Your task to perform on an android device: toggle sleep mode Image 0: 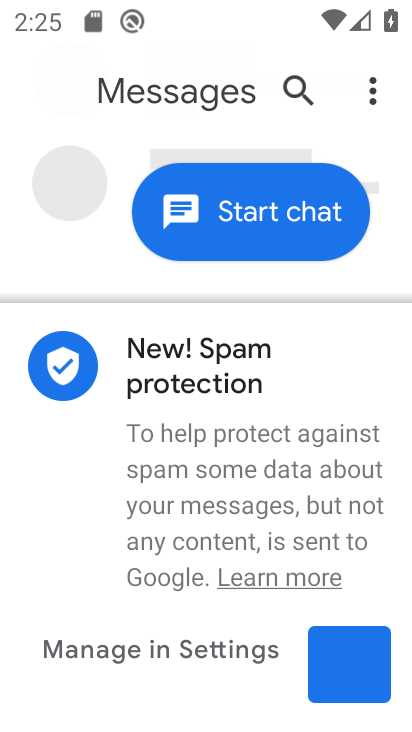
Step 0: click (409, 478)
Your task to perform on an android device: toggle sleep mode Image 1: 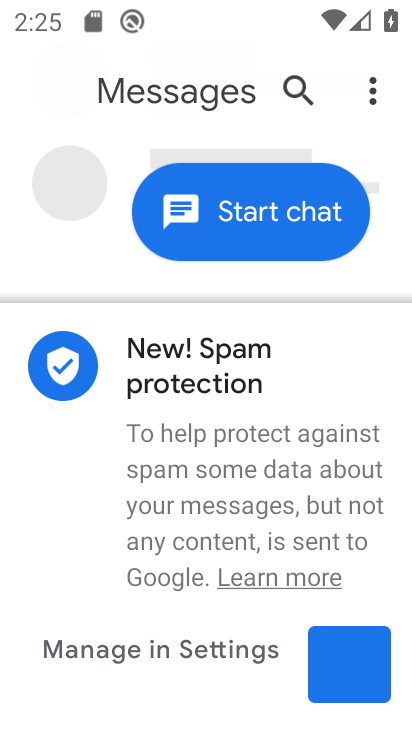
Step 1: press back button
Your task to perform on an android device: toggle sleep mode Image 2: 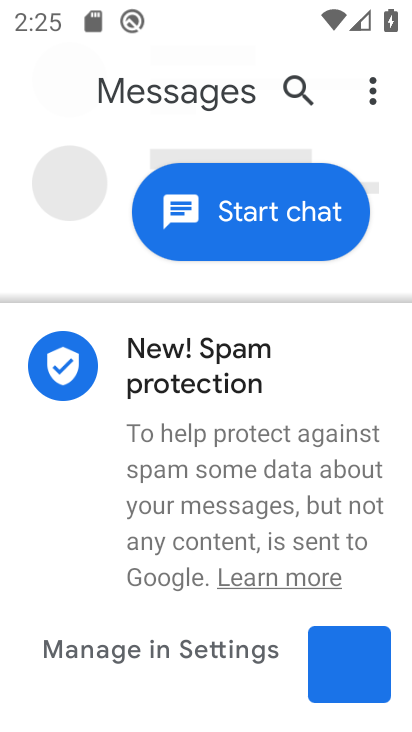
Step 2: press back button
Your task to perform on an android device: toggle sleep mode Image 3: 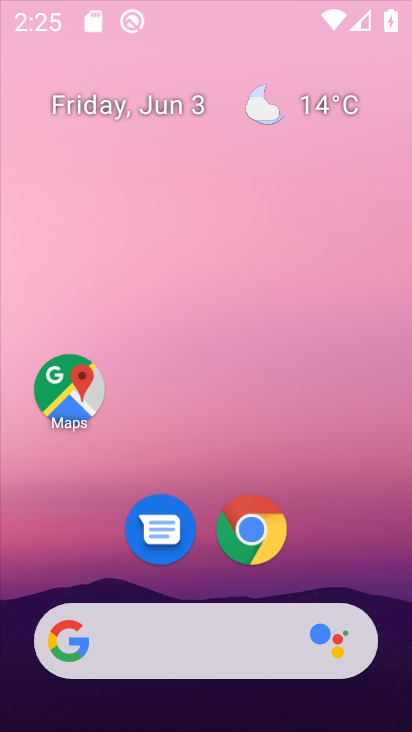
Step 3: press back button
Your task to perform on an android device: toggle sleep mode Image 4: 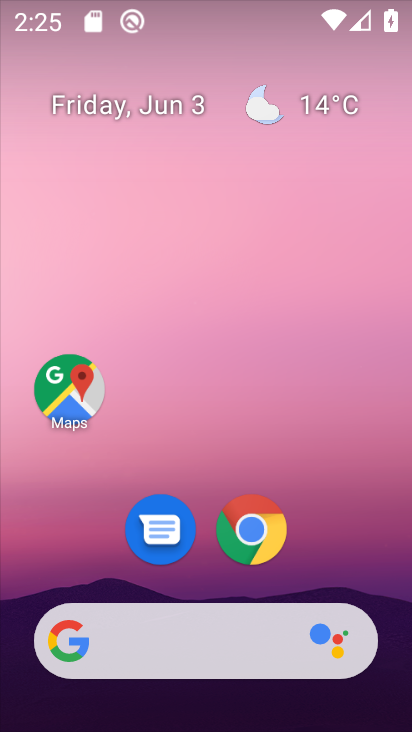
Step 4: drag from (238, 662) to (183, 0)
Your task to perform on an android device: toggle sleep mode Image 5: 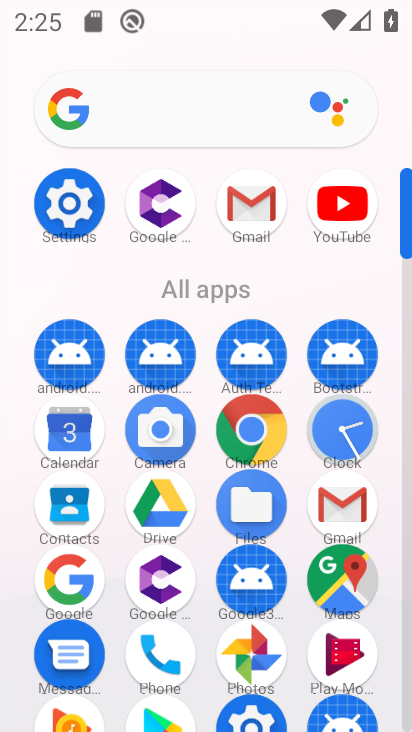
Step 5: drag from (218, 611) to (236, 38)
Your task to perform on an android device: toggle sleep mode Image 6: 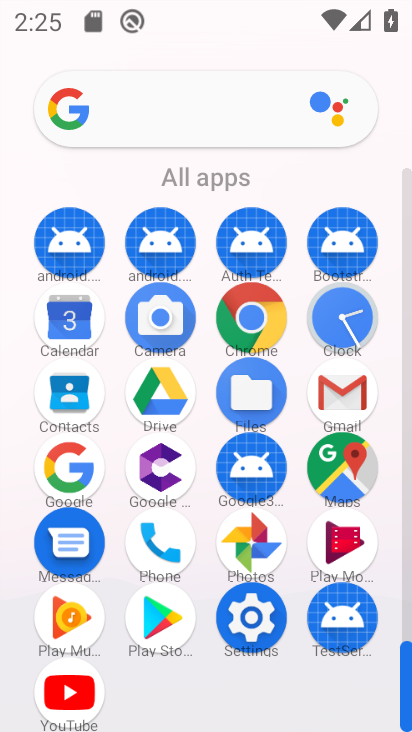
Step 6: click (239, 623)
Your task to perform on an android device: toggle sleep mode Image 7: 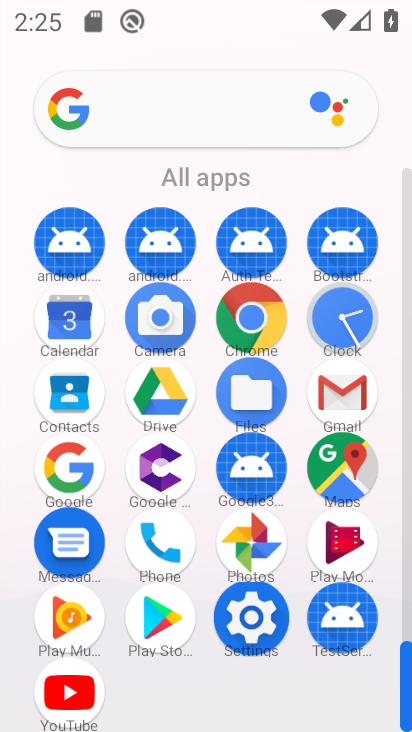
Step 7: click (251, 620)
Your task to perform on an android device: toggle sleep mode Image 8: 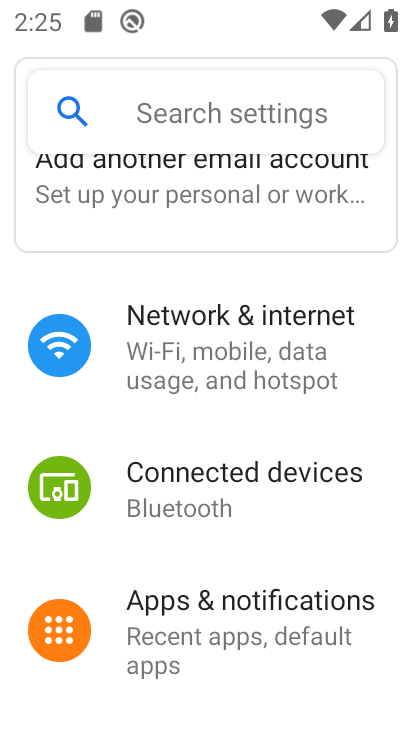
Step 8: drag from (243, 556) to (243, 211)
Your task to perform on an android device: toggle sleep mode Image 9: 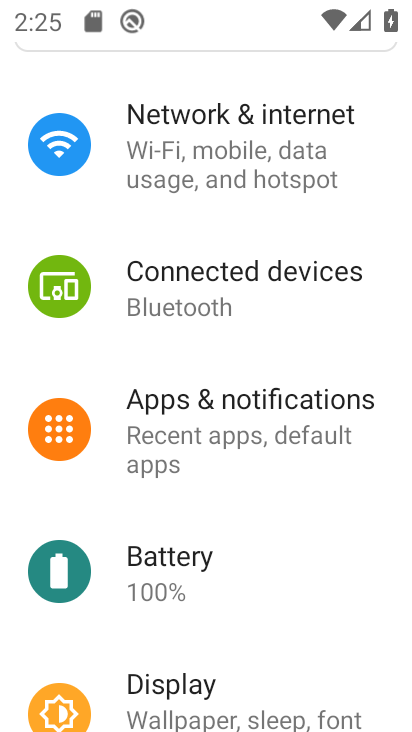
Step 9: drag from (230, 448) to (222, 147)
Your task to perform on an android device: toggle sleep mode Image 10: 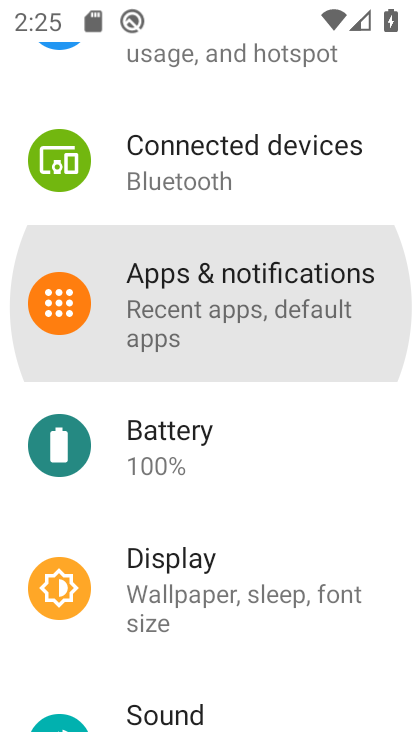
Step 10: drag from (226, 431) to (226, 239)
Your task to perform on an android device: toggle sleep mode Image 11: 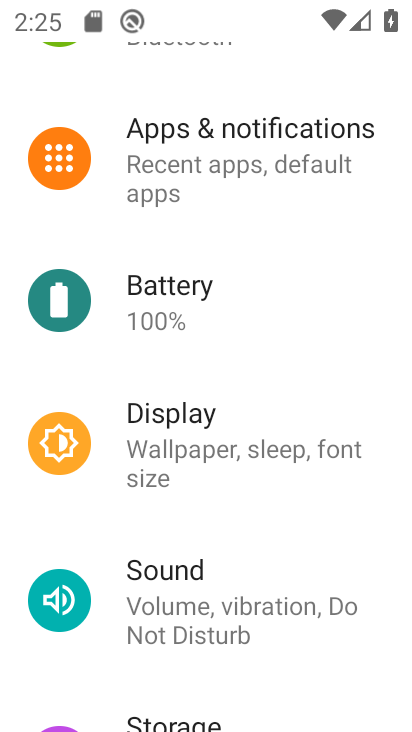
Step 11: click (204, 224)
Your task to perform on an android device: toggle sleep mode Image 12: 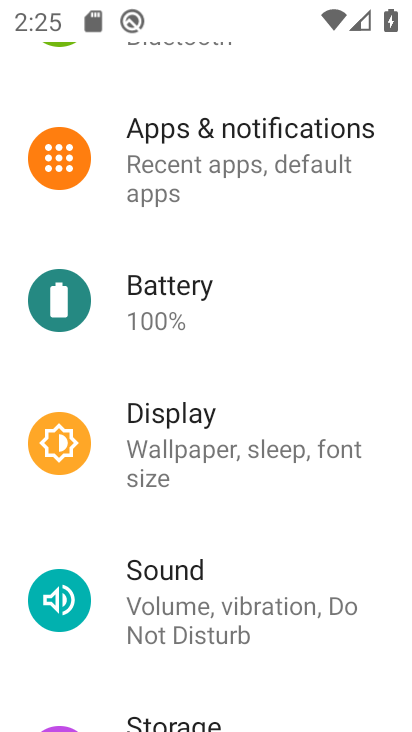
Step 12: drag from (204, 455) to (200, 194)
Your task to perform on an android device: toggle sleep mode Image 13: 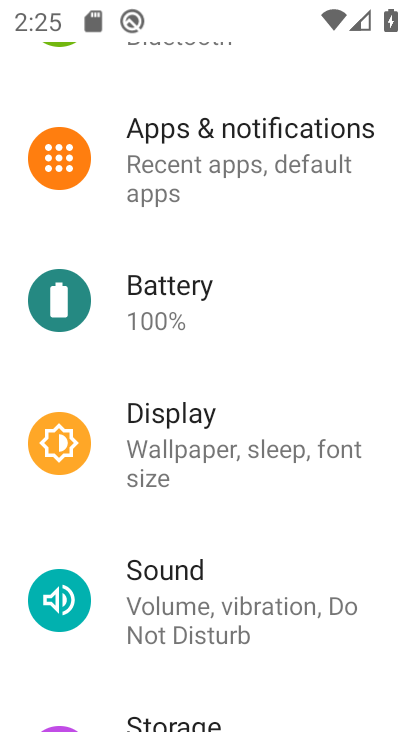
Step 13: drag from (234, 400) to (232, 288)
Your task to perform on an android device: toggle sleep mode Image 14: 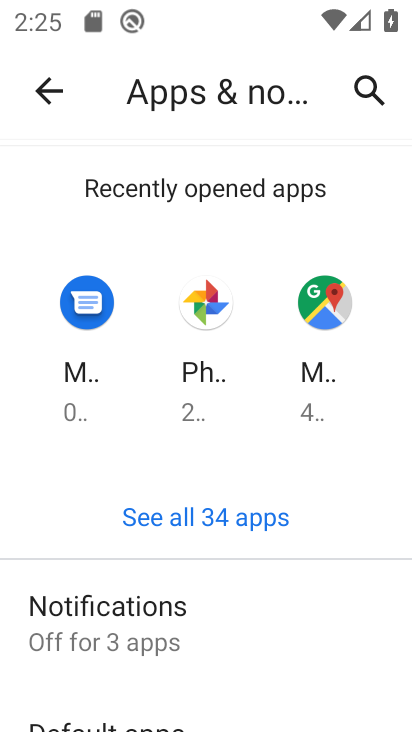
Step 14: click (44, 86)
Your task to perform on an android device: toggle sleep mode Image 15: 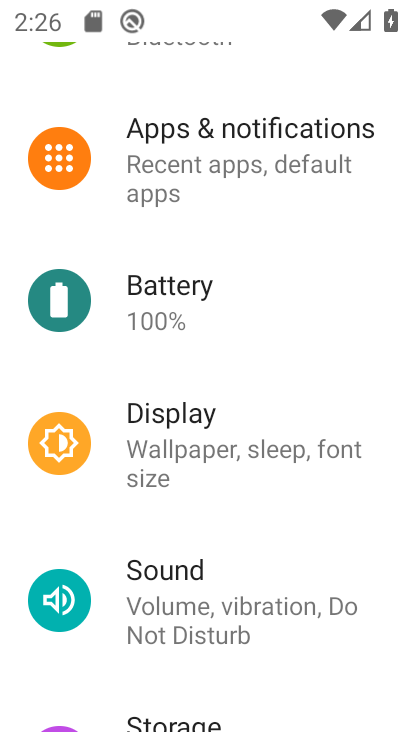
Step 15: drag from (209, 353) to (209, 281)
Your task to perform on an android device: toggle sleep mode Image 16: 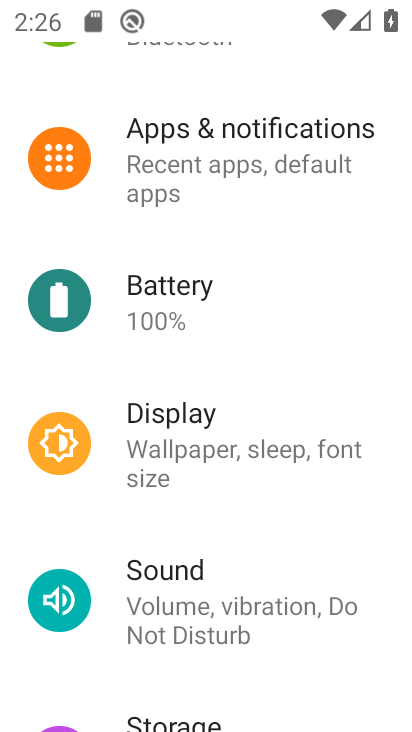
Step 16: drag from (264, 525) to (226, 213)
Your task to perform on an android device: toggle sleep mode Image 17: 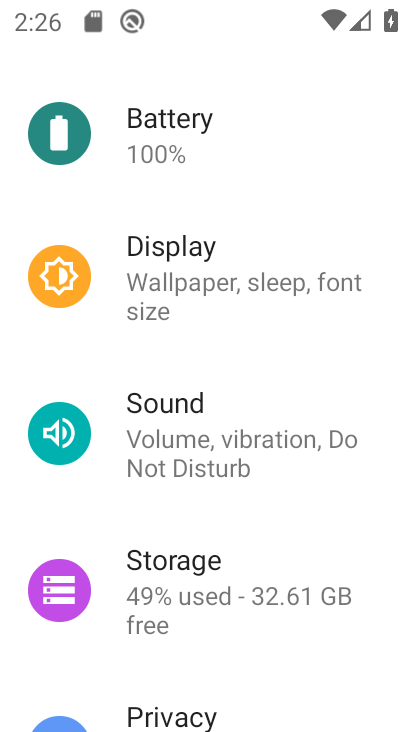
Step 17: drag from (234, 426) to (211, 209)
Your task to perform on an android device: toggle sleep mode Image 18: 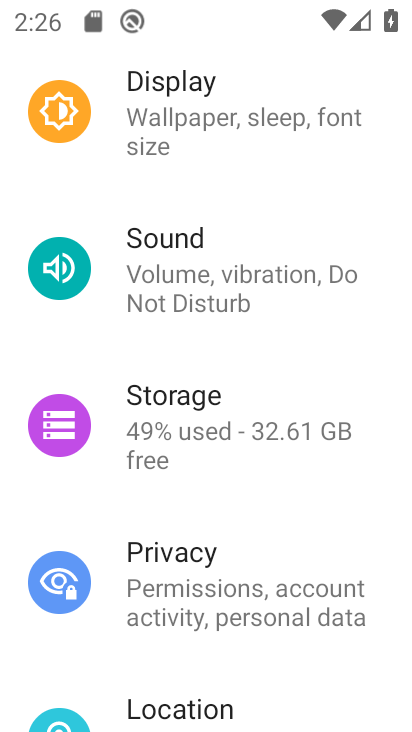
Step 18: click (237, 127)
Your task to perform on an android device: toggle sleep mode Image 19: 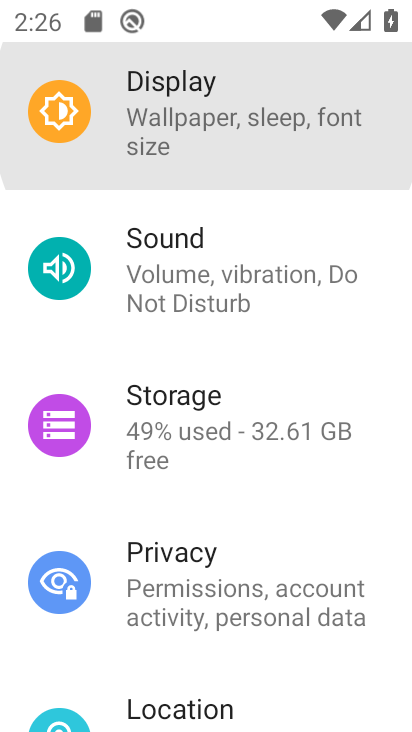
Step 19: click (236, 128)
Your task to perform on an android device: toggle sleep mode Image 20: 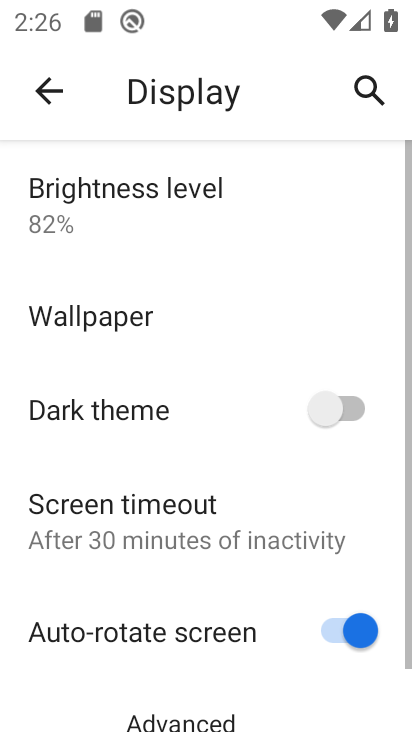
Step 20: click (238, 131)
Your task to perform on an android device: toggle sleep mode Image 21: 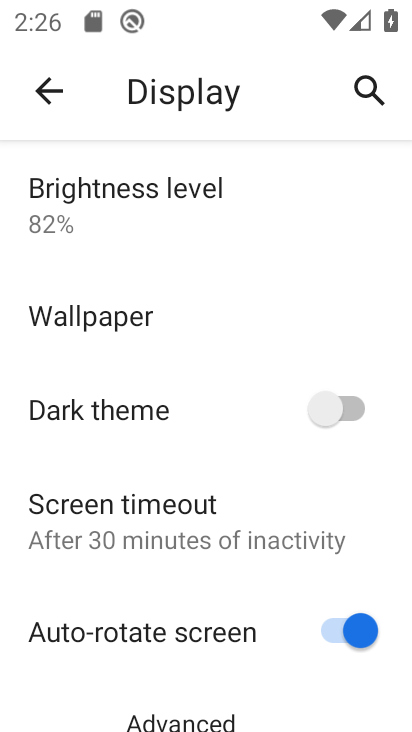
Step 21: click (149, 545)
Your task to perform on an android device: toggle sleep mode Image 22: 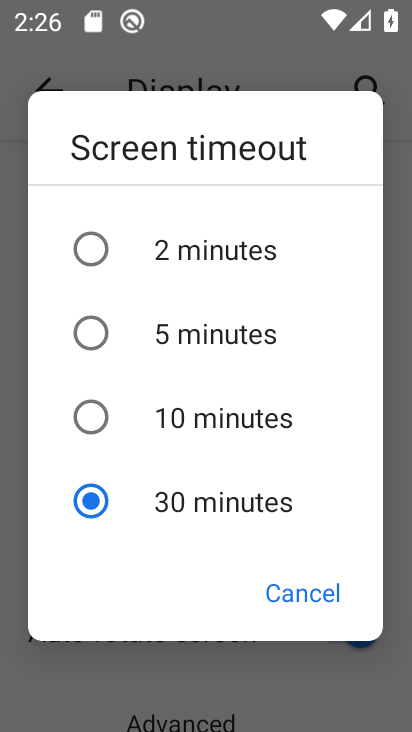
Step 22: click (102, 401)
Your task to perform on an android device: toggle sleep mode Image 23: 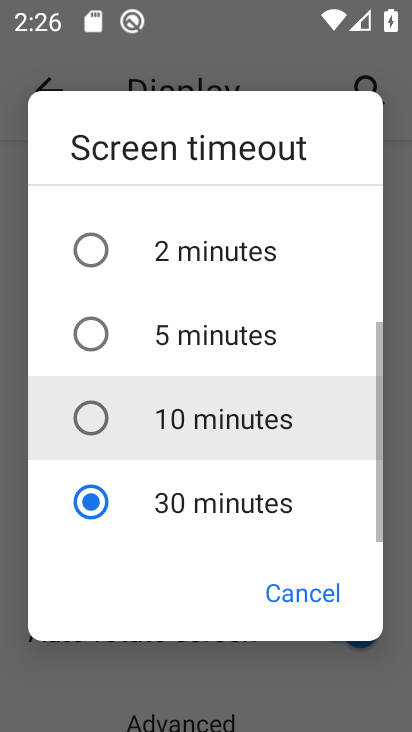
Step 23: click (86, 416)
Your task to perform on an android device: toggle sleep mode Image 24: 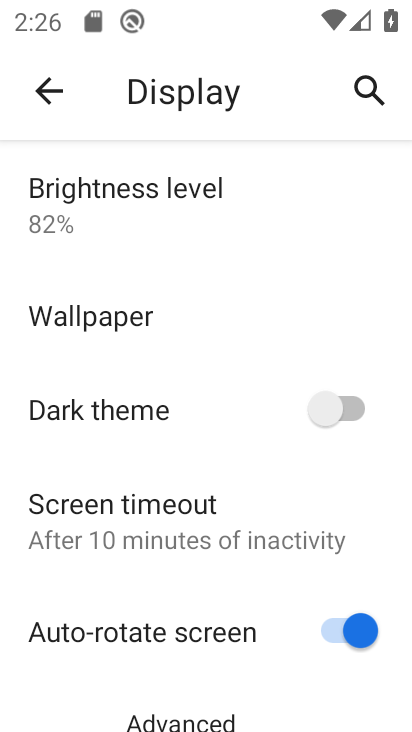
Step 24: task complete